Your task to perform on an android device: Empty the shopping cart on walmart. Add razer huntsman to the cart on walmart Image 0: 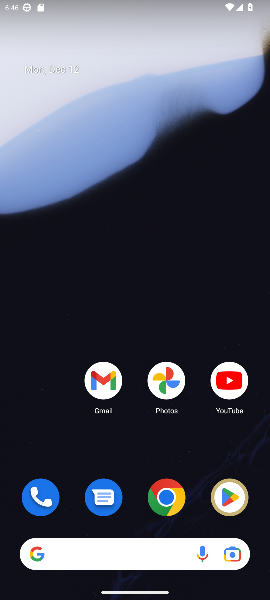
Step 0: press home button
Your task to perform on an android device: Empty the shopping cart on walmart. Add razer huntsman to the cart on walmart Image 1: 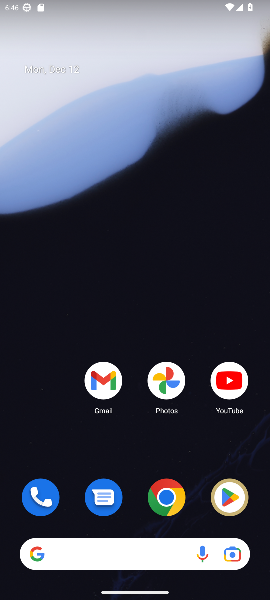
Step 1: drag from (59, 443) to (50, 39)
Your task to perform on an android device: Empty the shopping cart on walmart. Add razer huntsman to the cart on walmart Image 2: 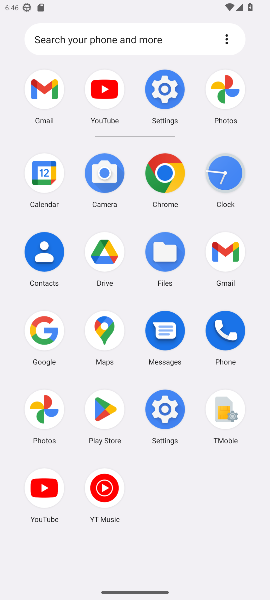
Step 2: click (41, 325)
Your task to perform on an android device: Empty the shopping cart on walmart. Add razer huntsman to the cart on walmart Image 3: 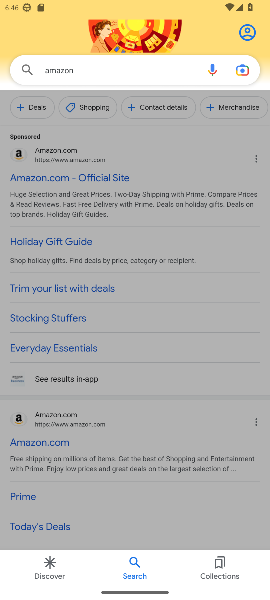
Step 3: click (101, 67)
Your task to perform on an android device: Empty the shopping cart on walmart. Add razer huntsman to the cart on walmart Image 4: 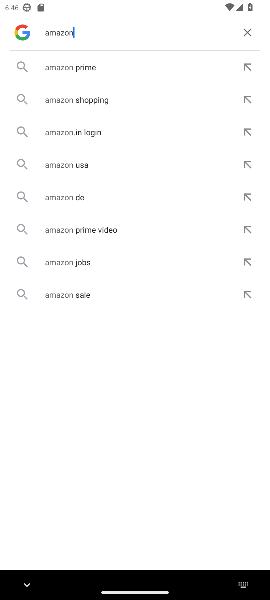
Step 4: click (246, 29)
Your task to perform on an android device: Empty the shopping cart on walmart. Add razer huntsman to the cart on walmart Image 5: 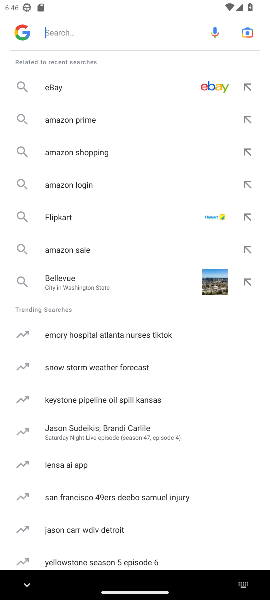
Step 5: type "walmart"
Your task to perform on an android device: Empty the shopping cart on walmart. Add razer huntsman to the cart on walmart Image 6: 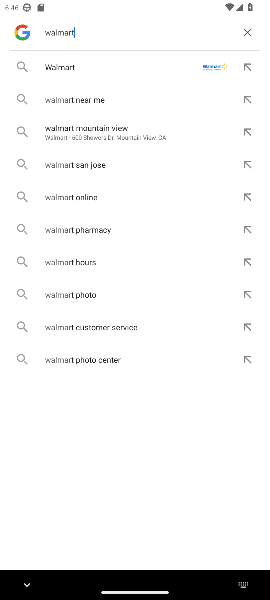
Step 6: press enter
Your task to perform on an android device: Empty the shopping cart on walmart. Add razer huntsman to the cart on walmart Image 7: 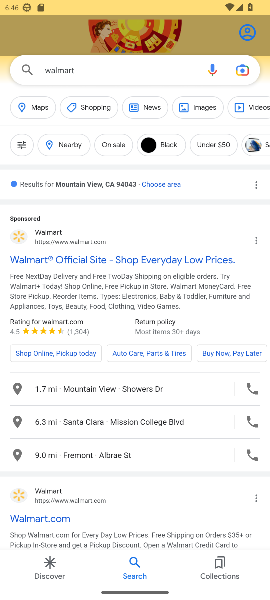
Step 7: click (78, 259)
Your task to perform on an android device: Empty the shopping cart on walmart. Add razer huntsman to the cart on walmart Image 8: 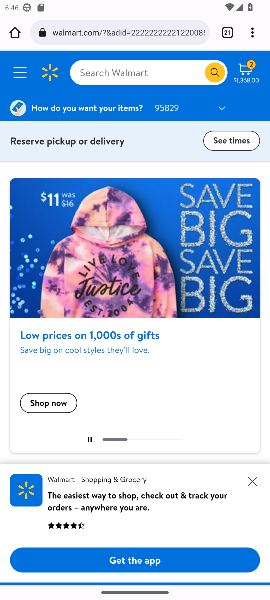
Step 8: click (248, 66)
Your task to perform on an android device: Empty the shopping cart on walmart. Add razer huntsman to the cart on walmart Image 9: 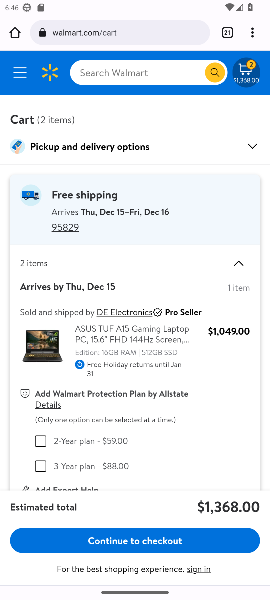
Step 9: drag from (153, 393) to (157, 191)
Your task to perform on an android device: Empty the shopping cart on walmart. Add razer huntsman to the cart on walmart Image 10: 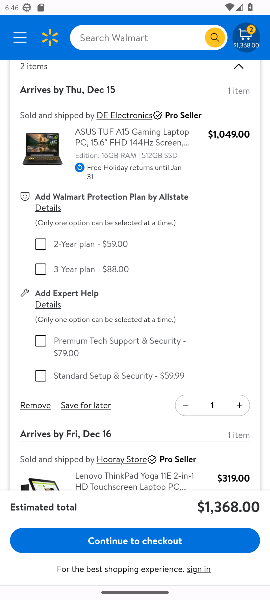
Step 10: click (28, 405)
Your task to perform on an android device: Empty the shopping cart on walmart. Add razer huntsman to the cart on walmart Image 11: 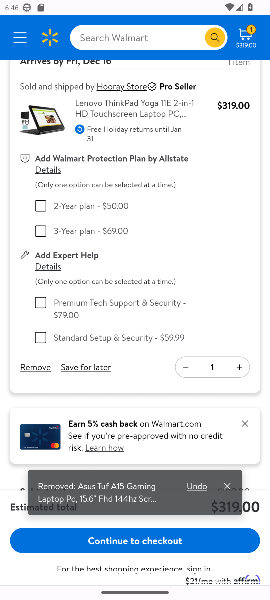
Step 11: click (27, 368)
Your task to perform on an android device: Empty the shopping cart on walmart. Add razer huntsman to the cart on walmart Image 12: 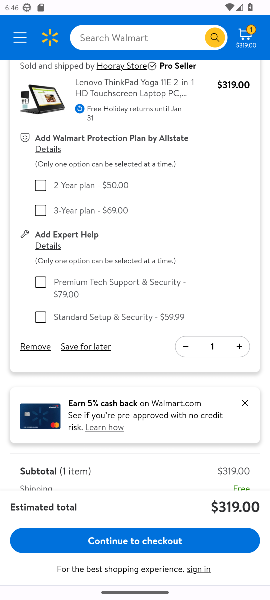
Step 12: click (29, 349)
Your task to perform on an android device: Empty the shopping cart on walmart. Add razer huntsman to the cart on walmart Image 13: 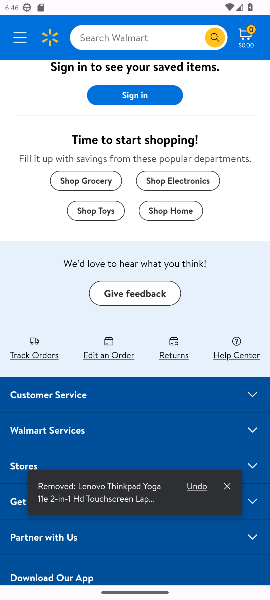
Step 13: click (99, 29)
Your task to perform on an android device: Empty the shopping cart on walmart. Add razer huntsman to the cart on walmart Image 14: 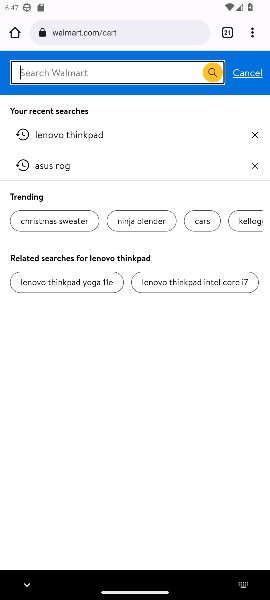
Step 14: type "razer huntsman"
Your task to perform on an android device: Empty the shopping cart on walmart. Add razer huntsman to the cart on walmart Image 15: 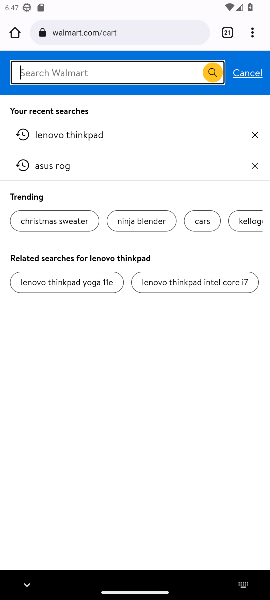
Step 15: press enter
Your task to perform on an android device: Empty the shopping cart on walmart. Add razer huntsman to the cart on walmart Image 16: 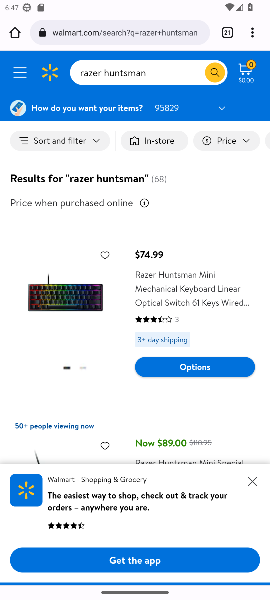
Step 16: click (169, 279)
Your task to perform on an android device: Empty the shopping cart on walmart. Add razer huntsman to the cart on walmart Image 17: 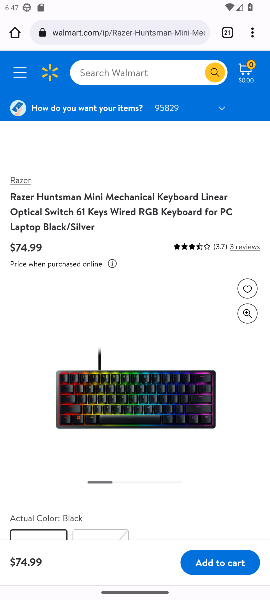
Step 17: drag from (180, 444) to (169, 219)
Your task to perform on an android device: Empty the shopping cart on walmart. Add razer huntsman to the cart on walmart Image 18: 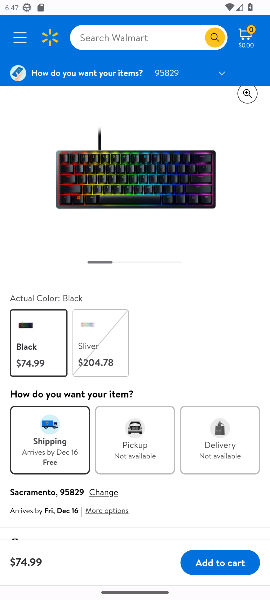
Step 18: click (212, 565)
Your task to perform on an android device: Empty the shopping cart on walmart. Add razer huntsman to the cart on walmart Image 19: 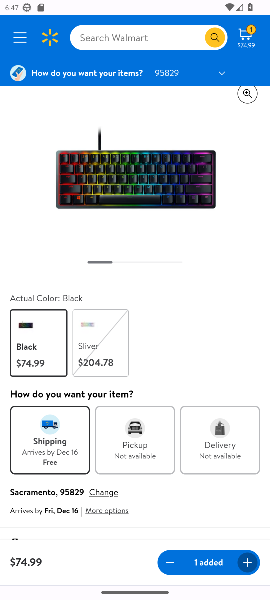
Step 19: task complete